Your task to perform on an android device: Go to Wikipedia Image 0: 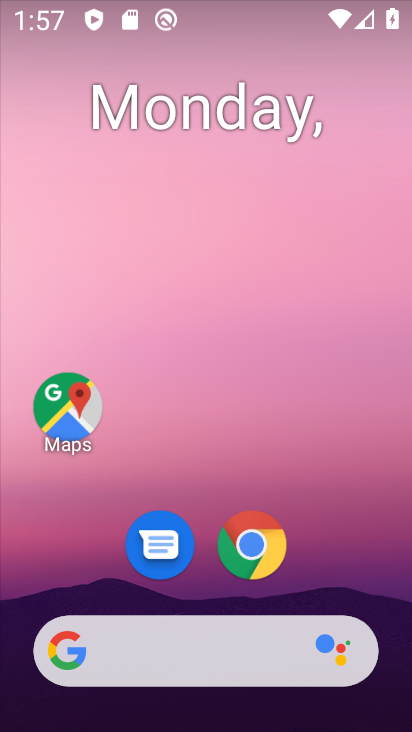
Step 0: click (252, 543)
Your task to perform on an android device: Go to Wikipedia Image 1: 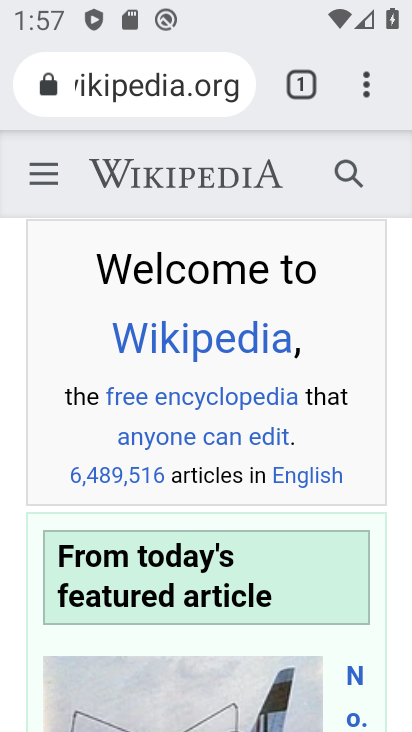
Step 1: task complete